Your task to perform on an android device: Open calendar and show me the first week of next month Image 0: 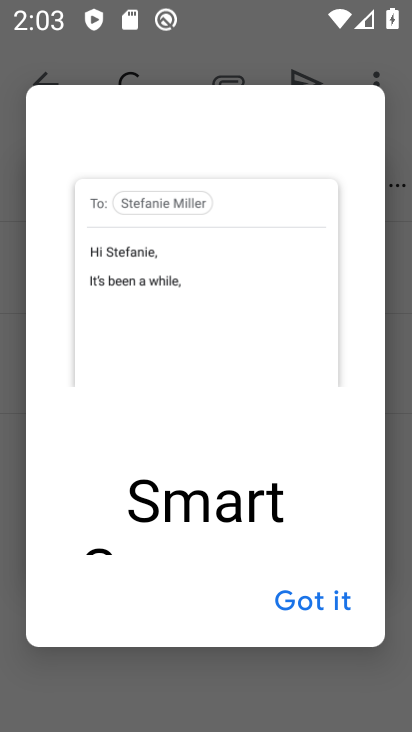
Step 0: press back button
Your task to perform on an android device: Open calendar and show me the first week of next month Image 1: 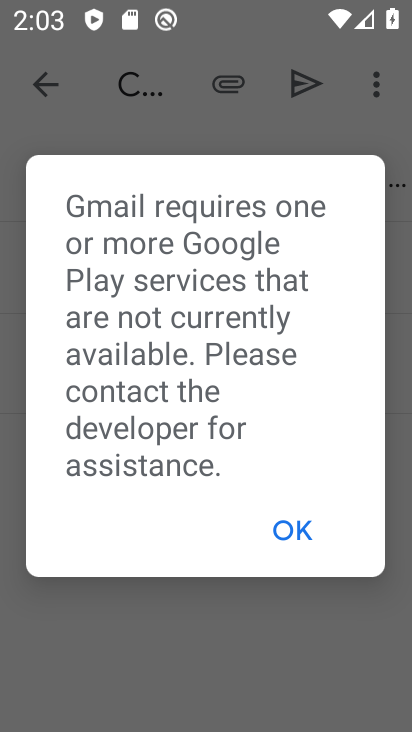
Step 1: press home button
Your task to perform on an android device: Open calendar and show me the first week of next month Image 2: 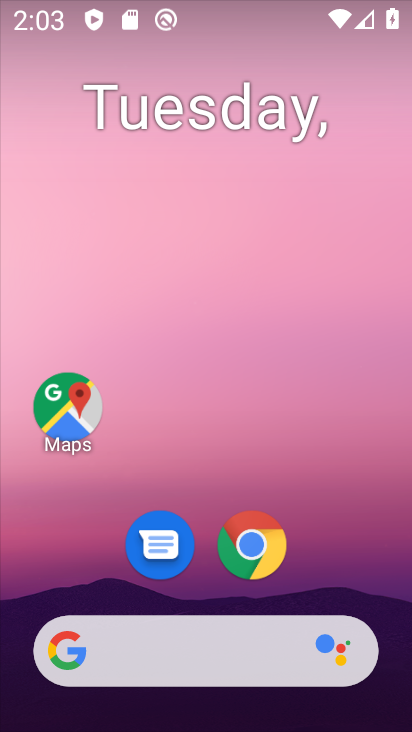
Step 2: drag from (337, 542) to (309, 33)
Your task to perform on an android device: Open calendar and show me the first week of next month Image 3: 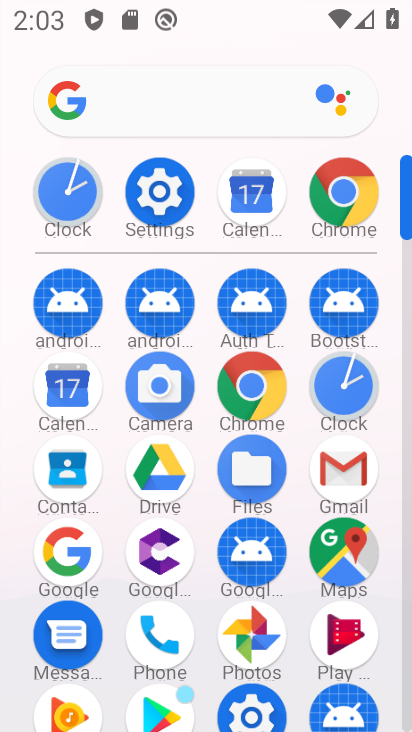
Step 3: click (64, 381)
Your task to perform on an android device: Open calendar and show me the first week of next month Image 4: 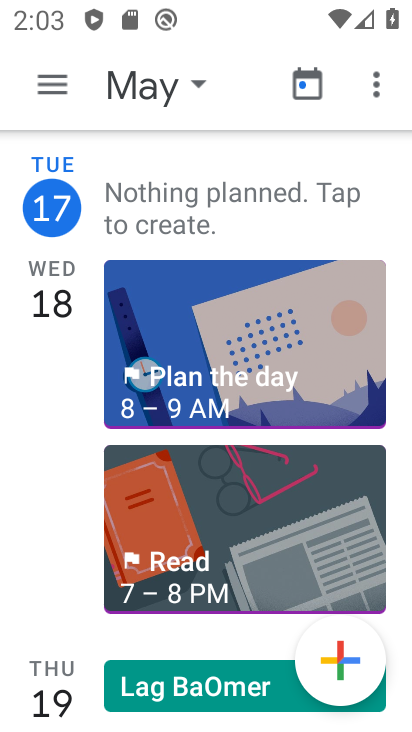
Step 4: click (137, 84)
Your task to perform on an android device: Open calendar and show me the first week of next month Image 5: 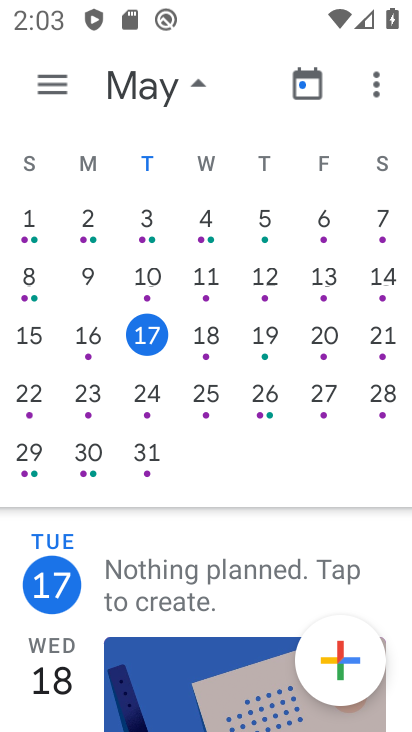
Step 5: drag from (389, 268) to (8, 294)
Your task to perform on an android device: Open calendar and show me the first week of next month Image 6: 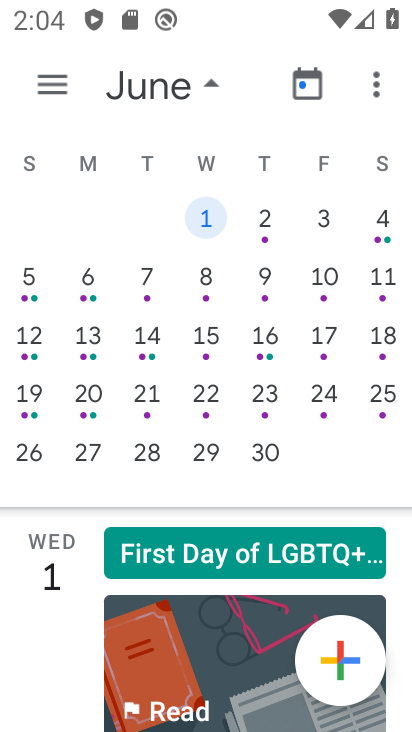
Step 6: click (61, 82)
Your task to perform on an android device: Open calendar and show me the first week of next month Image 7: 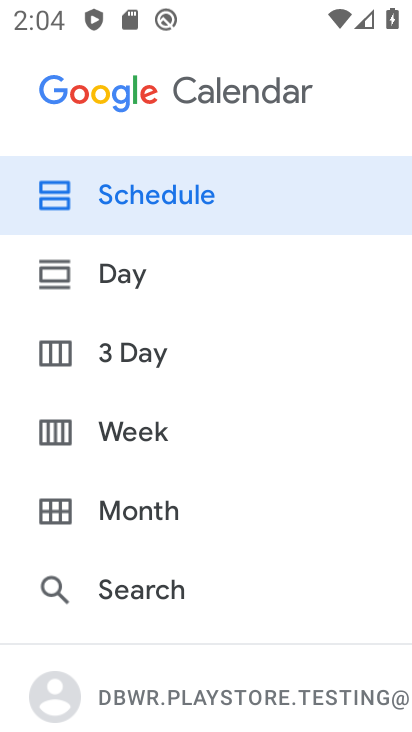
Step 7: click (146, 430)
Your task to perform on an android device: Open calendar and show me the first week of next month Image 8: 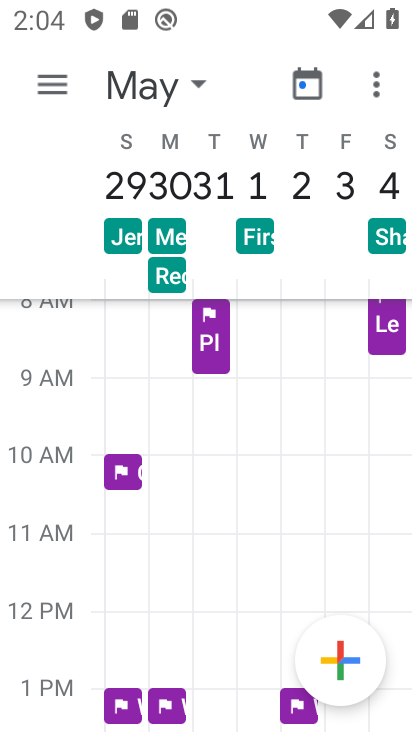
Step 8: task complete